Your task to perform on an android device: turn off notifications settings in the gmail app Image 0: 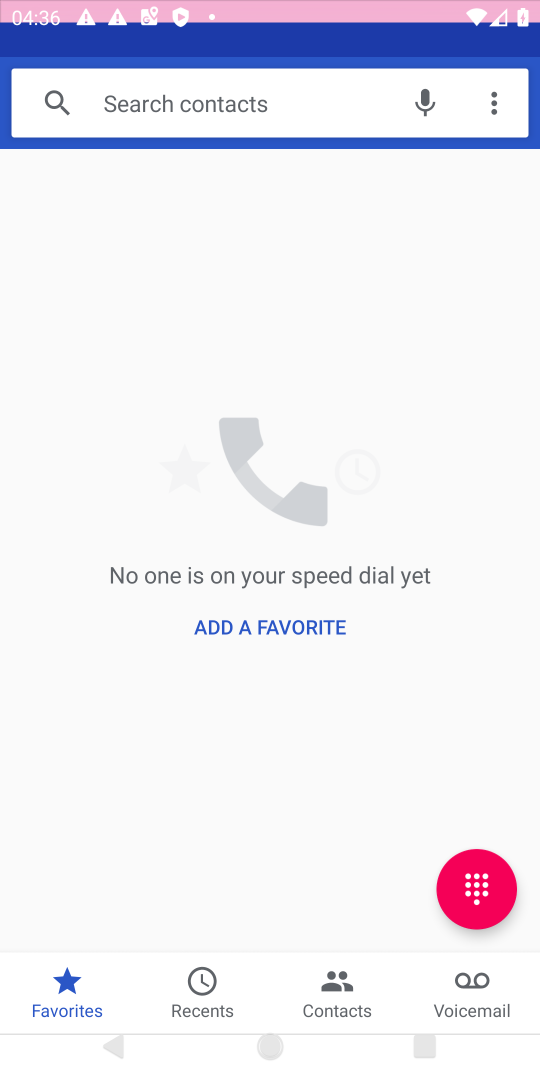
Step 0: click (396, 867)
Your task to perform on an android device: turn off notifications settings in the gmail app Image 1: 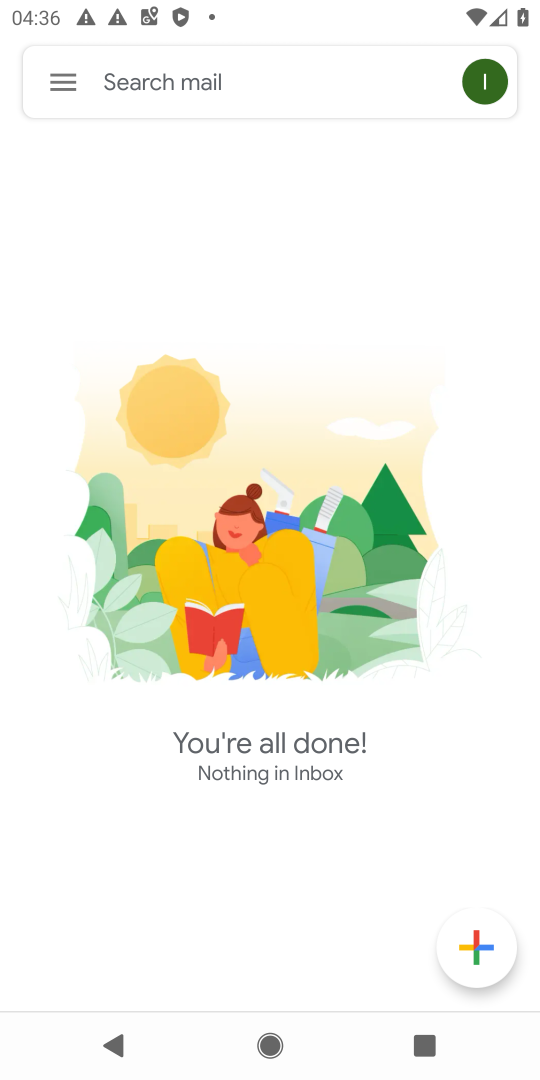
Step 1: click (63, 85)
Your task to perform on an android device: turn off notifications settings in the gmail app Image 2: 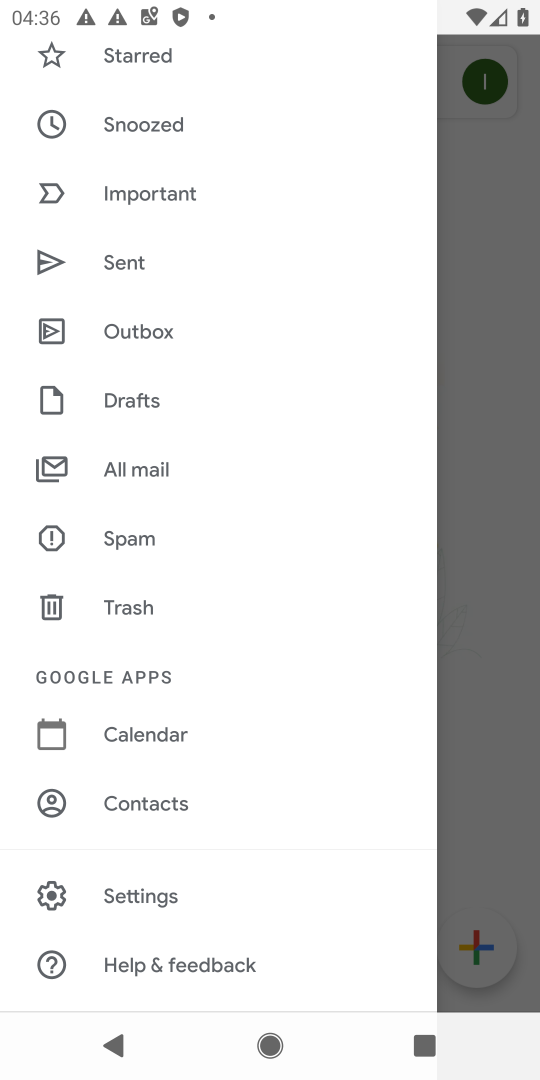
Step 2: click (195, 912)
Your task to perform on an android device: turn off notifications settings in the gmail app Image 3: 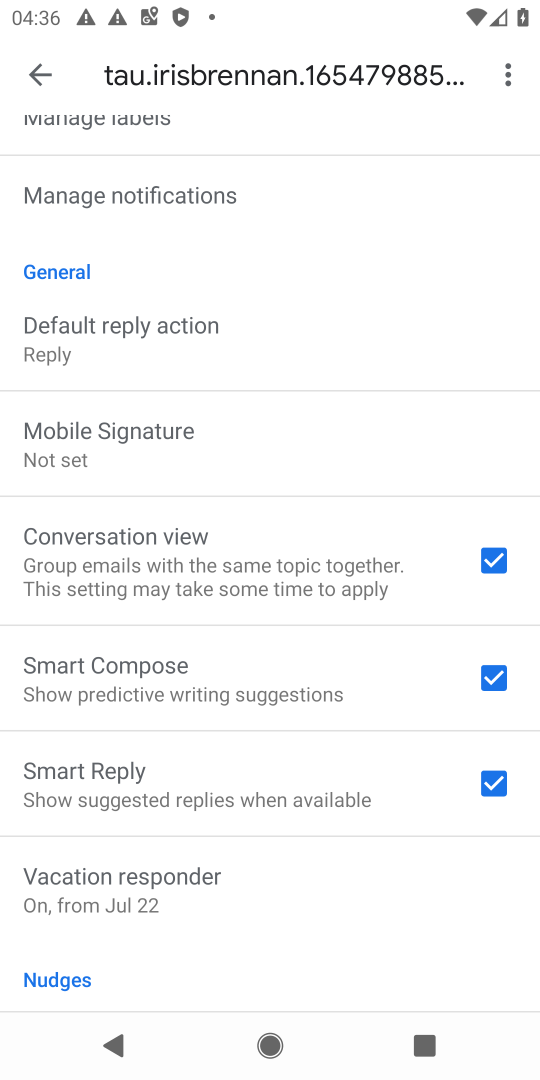
Step 3: click (212, 206)
Your task to perform on an android device: turn off notifications settings in the gmail app Image 4: 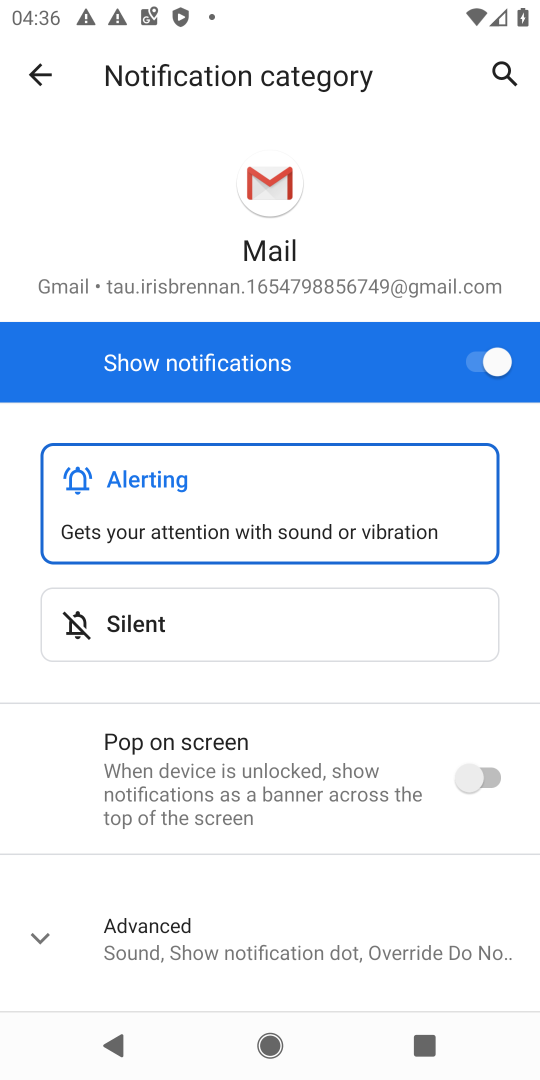
Step 4: drag from (343, 904) to (280, 228)
Your task to perform on an android device: turn off notifications settings in the gmail app Image 5: 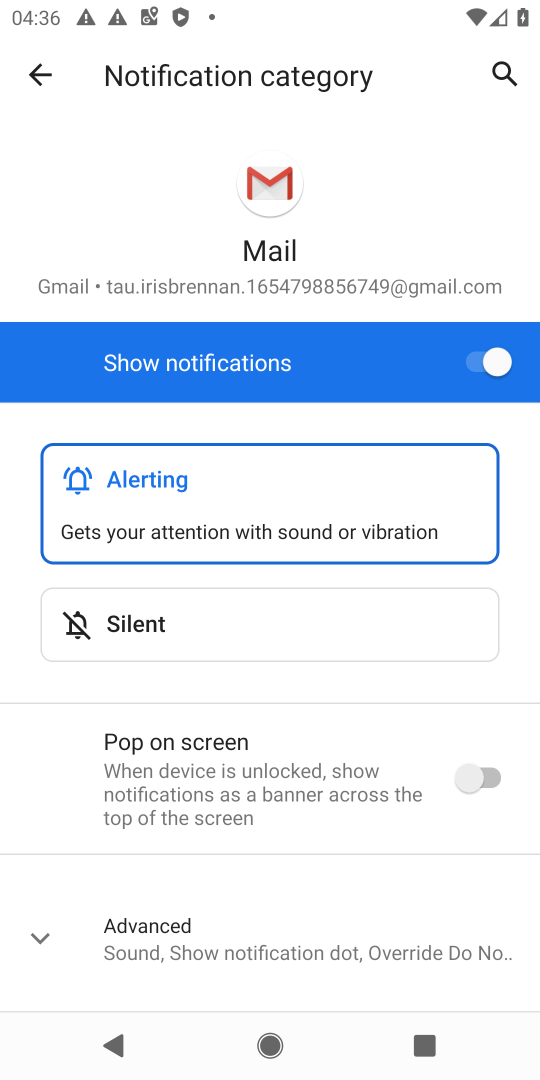
Step 5: click (422, 929)
Your task to perform on an android device: turn off notifications settings in the gmail app Image 6: 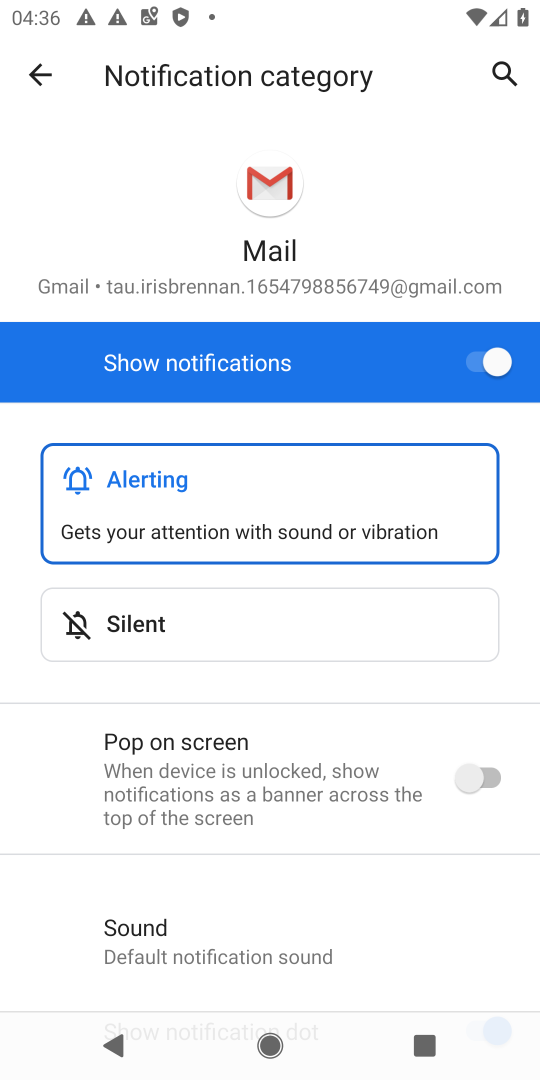
Step 6: drag from (315, 864) to (277, 264)
Your task to perform on an android device: turn off notifications settings in the gmail app Image 7: 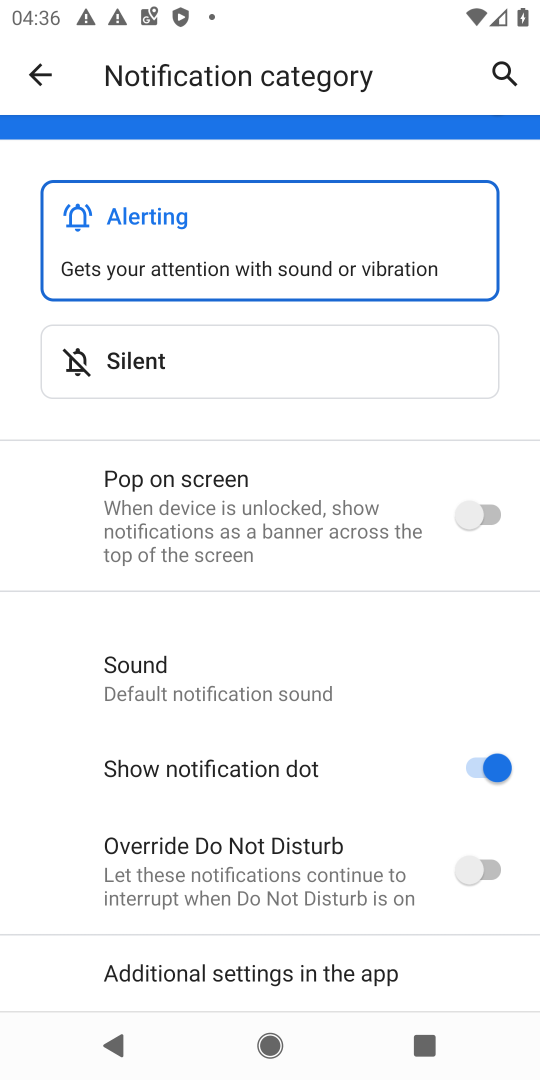
Step 7: click (493, 769)
Your task to perform on an android device: turn off notifications settings in the gmail app Image 8: 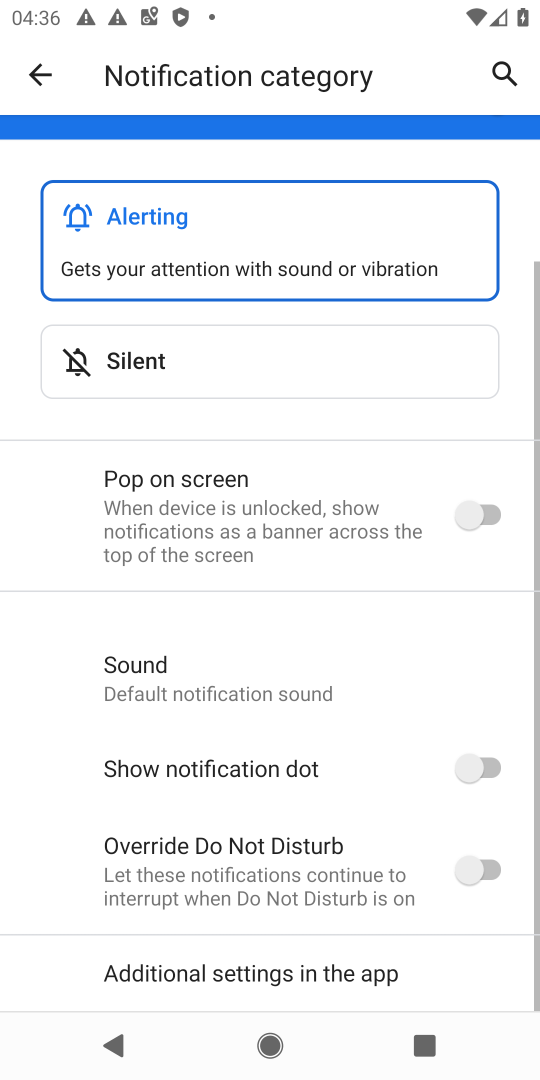
Step 8: task complete